Your task to perform on an android device: make emails show in primary in the gmail app Image 0: 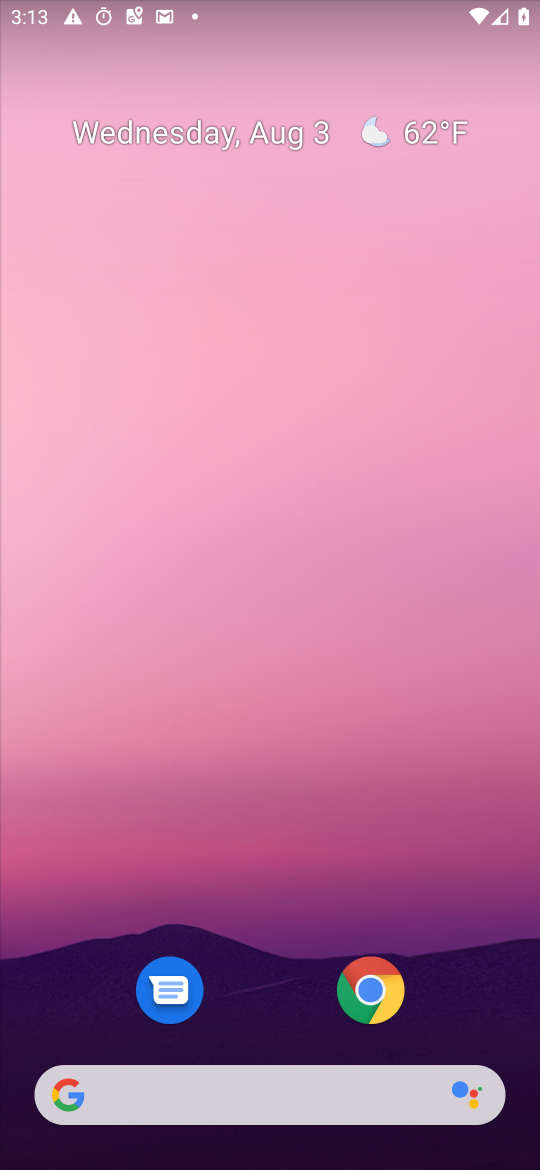
Step 0: drag from (307, 1047) to (346, 26)
Your task to perform on an android device: make emails show in primary in the gmail app Image 1: 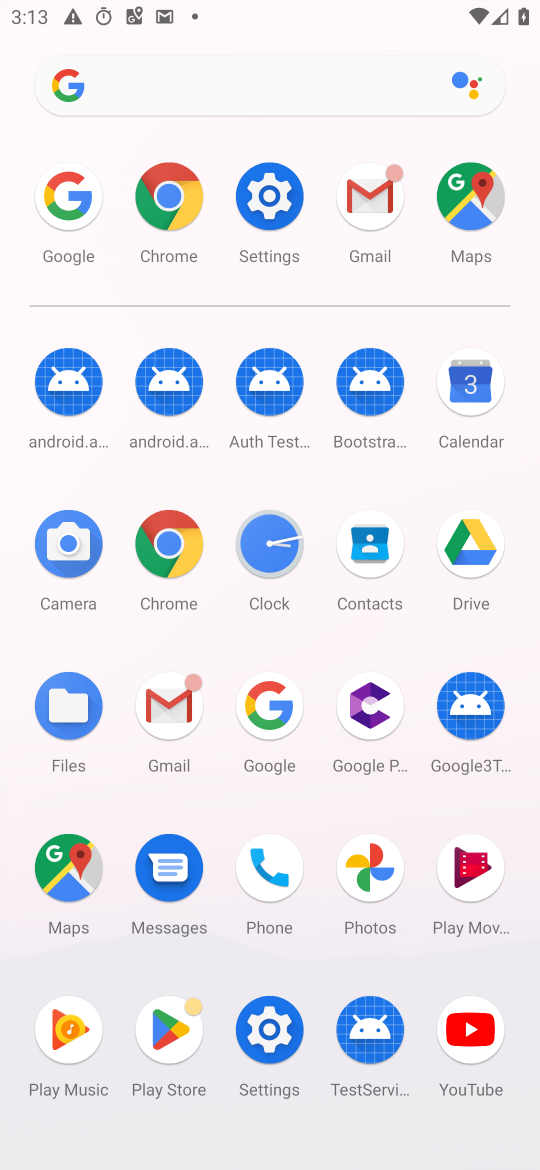
Step 1: click (176, 694)
Your task to perform on an android device: make emails show in primary in the gmail app Image 2: 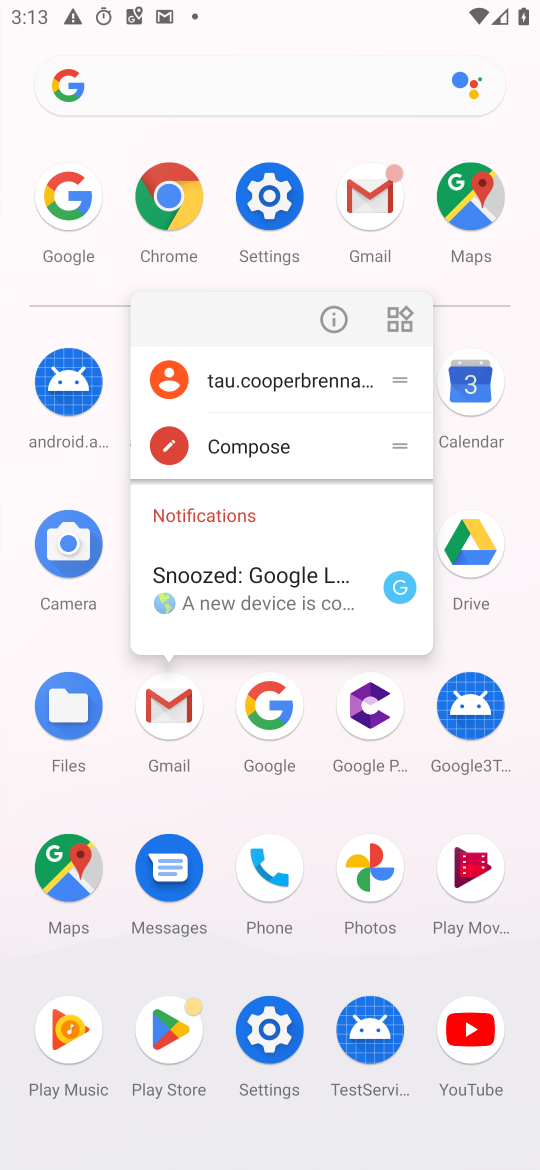
Step 2: click (188, 694)
Your task to perform on an android device: make emails show in primary in the gmail app Image 3: 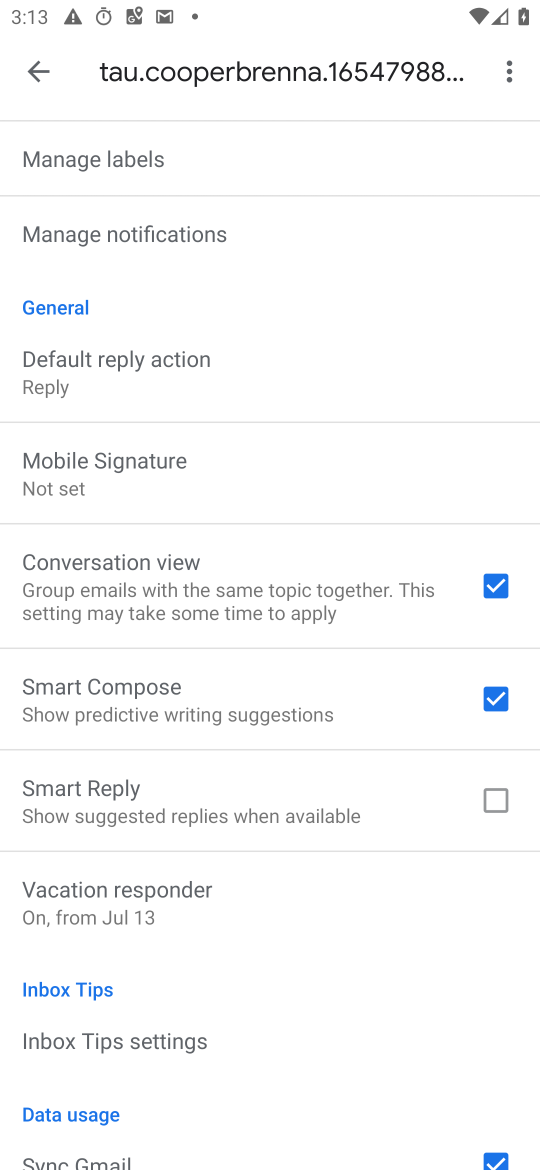
Step 3: drag from (85, 186) to (149, 735)
Your task to perform on an android device: make emails show in primary in the gmail app Image 4: 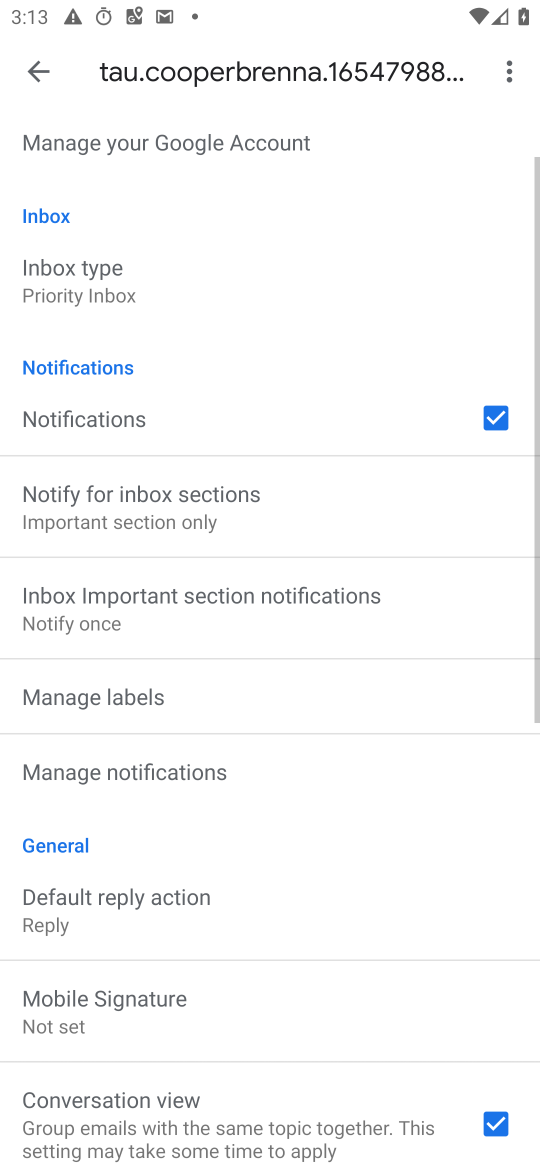
Step 4: drag from (173, 172) to (163, 587)
Your task to perform on an android device: make emails show in primary in the gmail app Image 5: 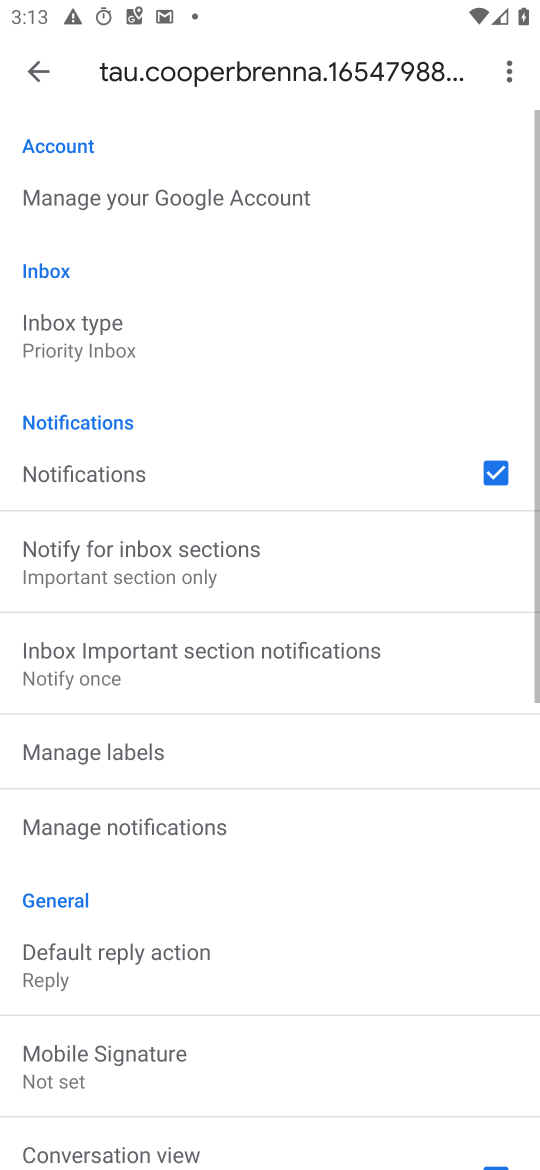
Step 5: click (84, 339)
Your task to perform on an android device: make emails show in primary in the gmail app Image 6: 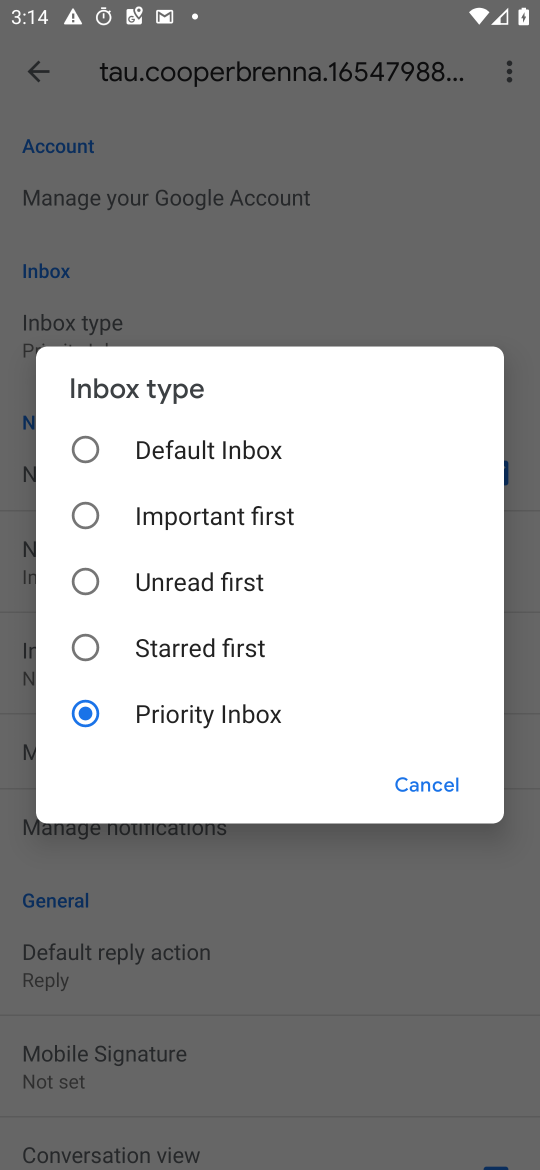
Step 6: click (160, 441)
Your task to perform on an android device: make emails show in primary in the gmail app Image 7: 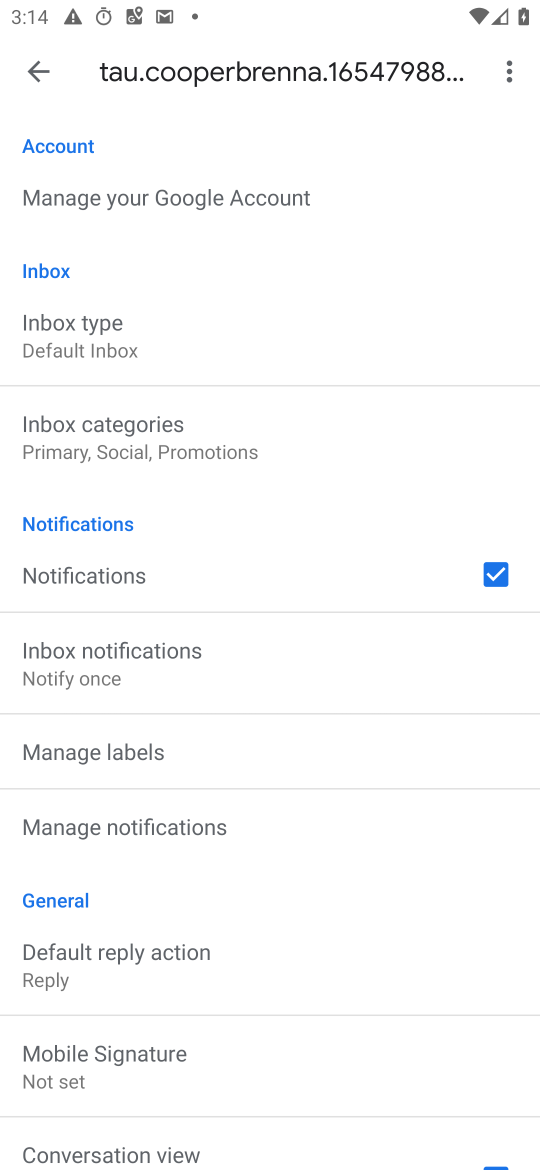
Step 7: click (120, 440)
Your task to perform on an android device: make emails show in primary in the gmail app Image 8: 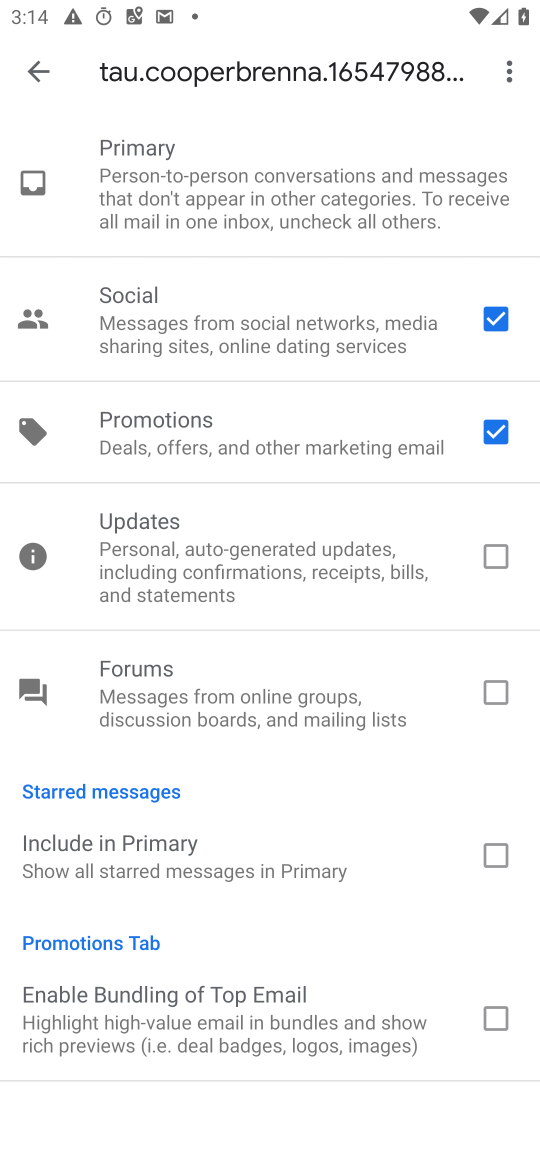
Step 8: click (505, 435)
Your task to perform on an android device: make emails show in primary in the gmail app Image 9: 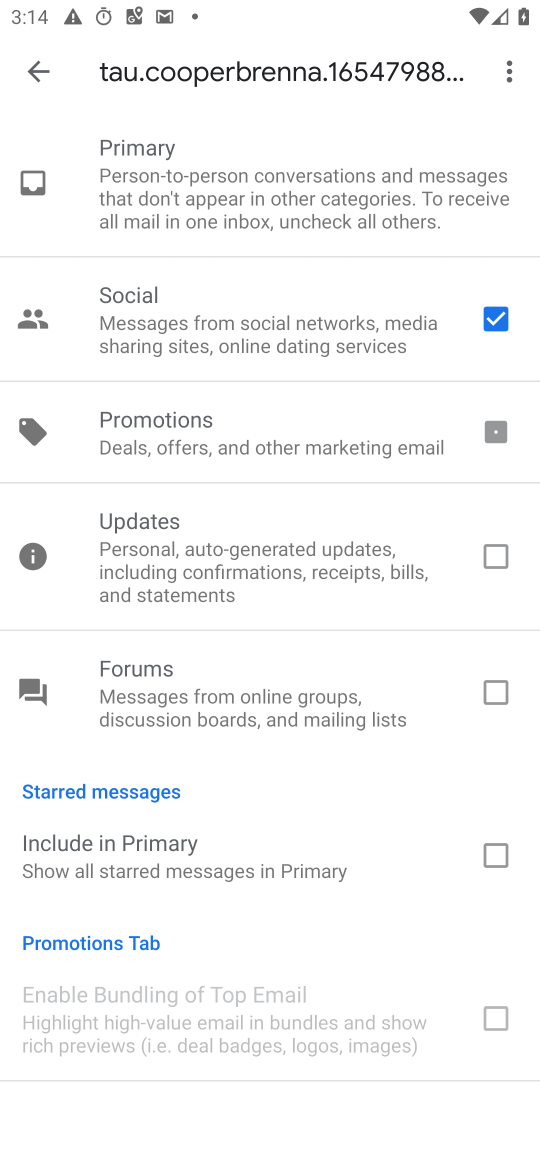
Step 9: click (491, 314)
Your task to perform on an android device: make emails show in primary in the gmail app Image 10: 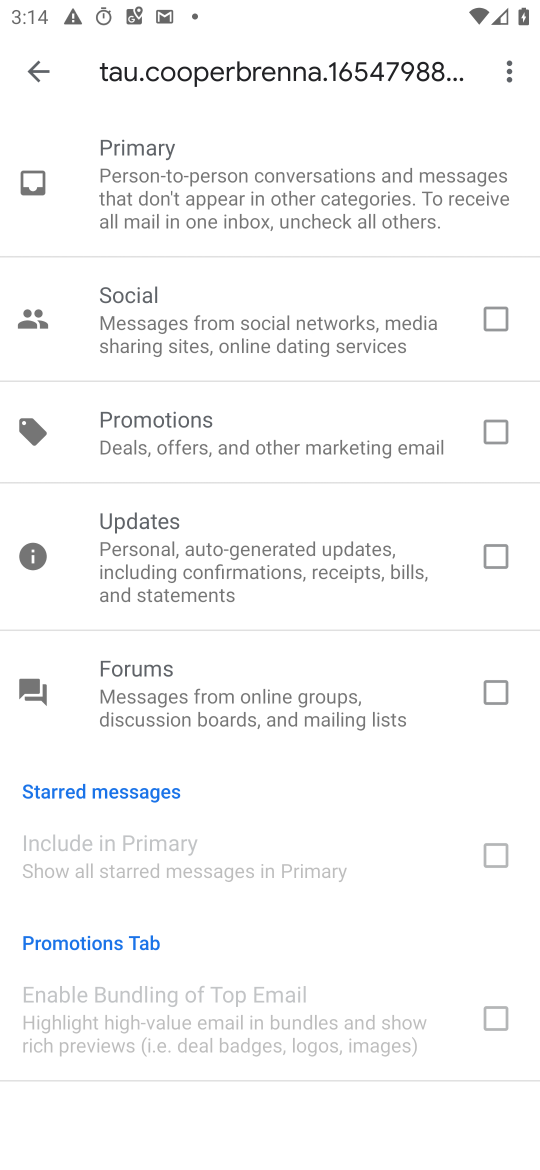
Step 10: click (50, 80)
Your task to perform on an android device: make emails show in primary in the gmail app Image 11: 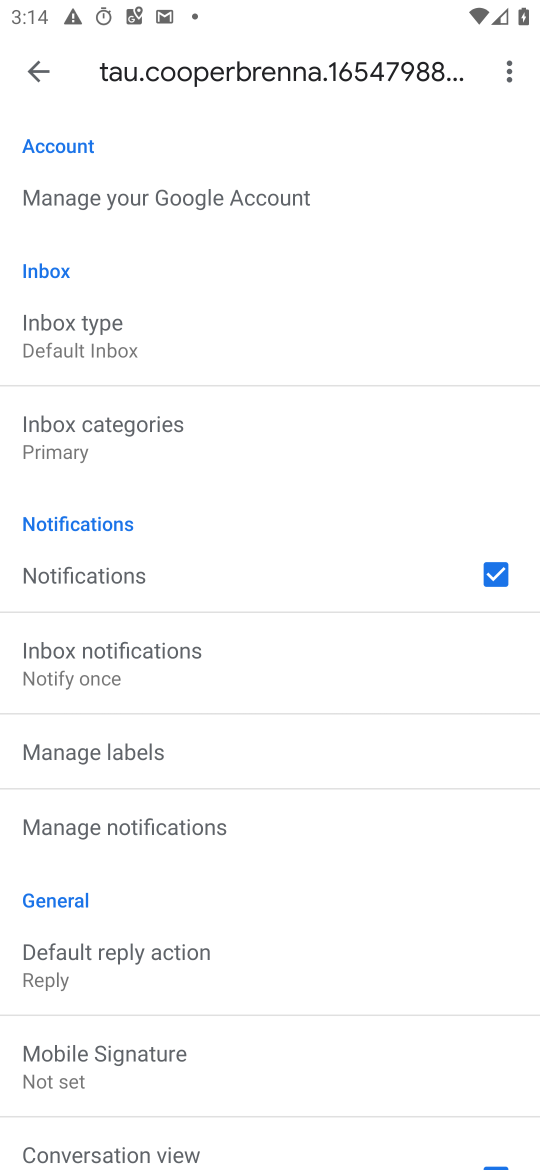
Step 11: task complete